Your task to perform on an android device: delete location history Image 0: 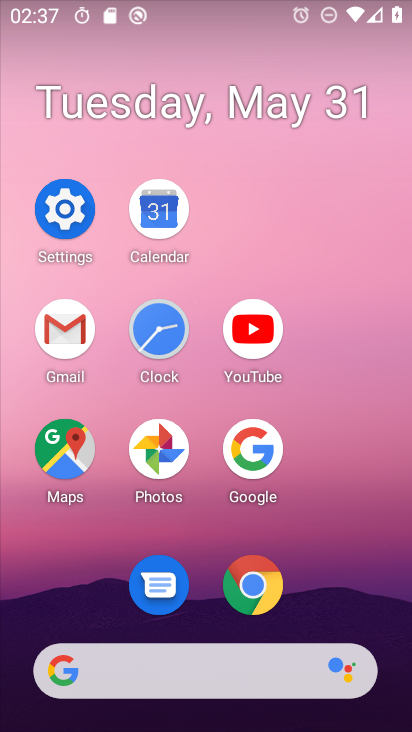
Step 0: click (50, 202)
Your task to perform on an android device: delete location history Image 1: 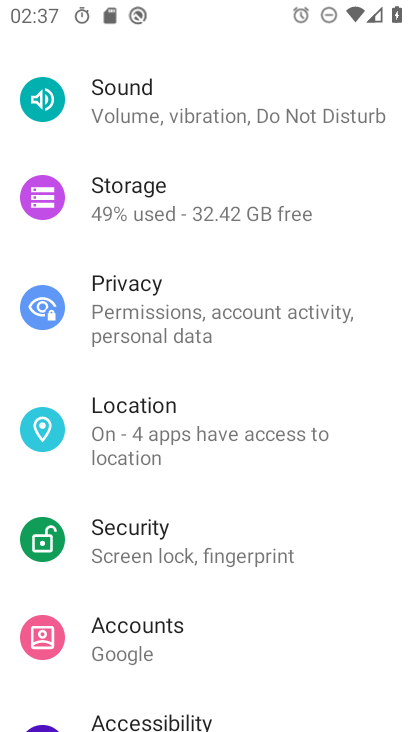
Step 1: click (220, 452)
Your task to perform on an android device: delete location history Image 2: 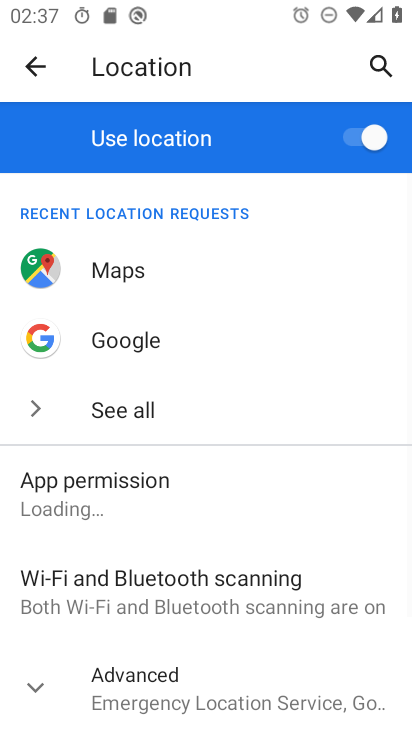
Step 2: click (214, 698)
Your task to perform on an android device: delete location history Image 3: 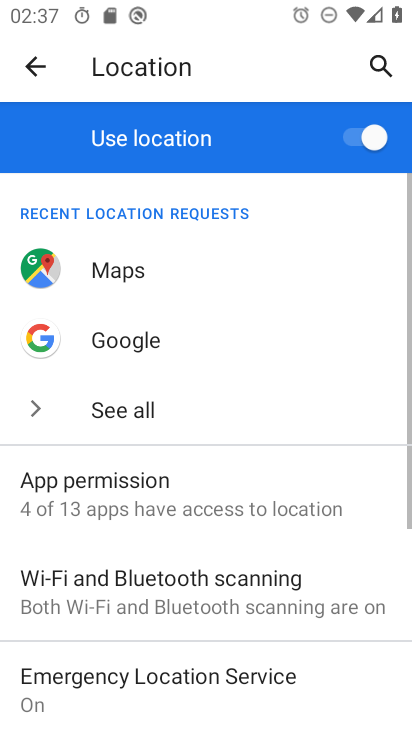
Step 3: drag from (223, 678) to (205, 206)
Your task to perform on an android device: delete location history Image 4: 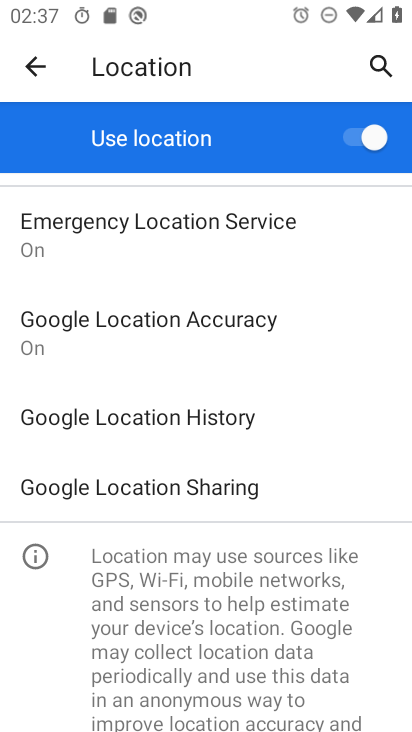
Step 4: click (290, 427)
Your task to perform on an android device: delete location history Image 5: 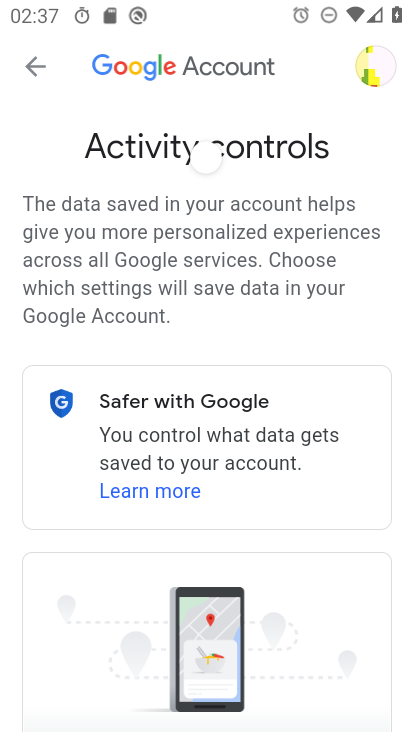
Step 5: drag from (265, 596) to (294, 104)
Your task to perform on an android device: delete location history Image 6: 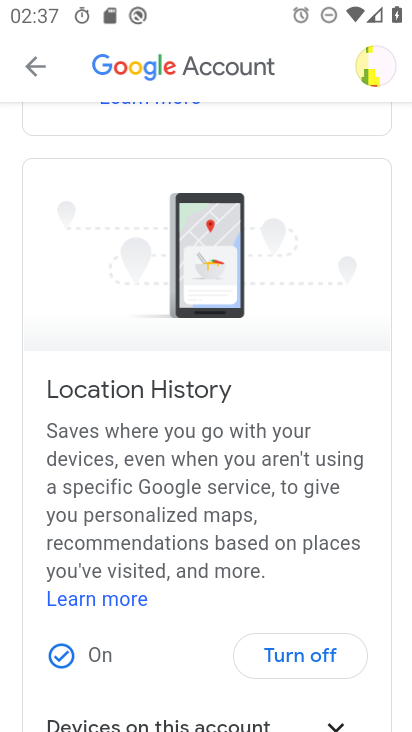
Step 6: drag from (283, 594) to (287, 171)
Your task to perform on an android device: delete location history Image 7: 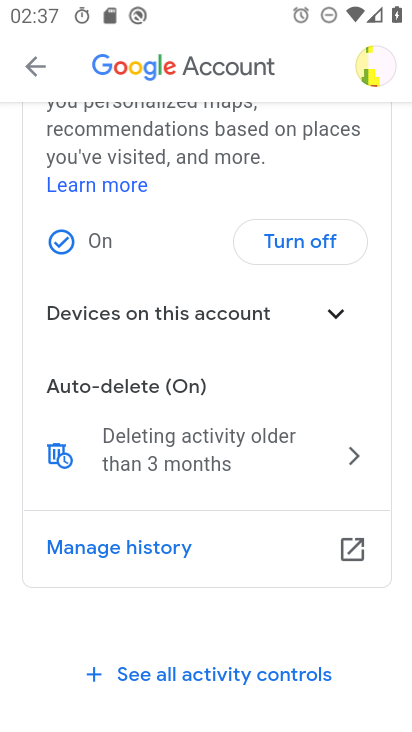
Step 7: click (257, 447)
Your task to perform on an android device: delete location history Image 8: 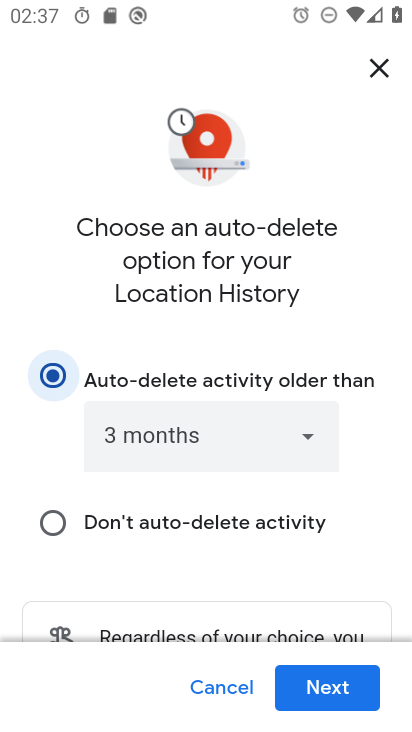
Step 8: drag from (289, 597) to (299, 172)
Your task to perform on an android device: delete location history Image 9: 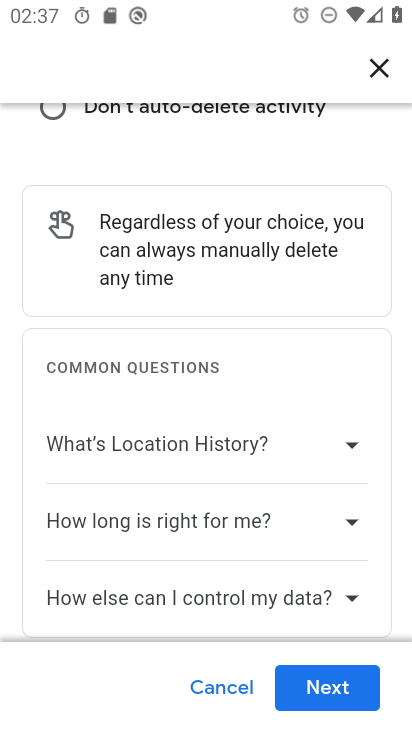
Step 9: click (357, 693)
Your task to perform on an android device: delete location history Image 10: 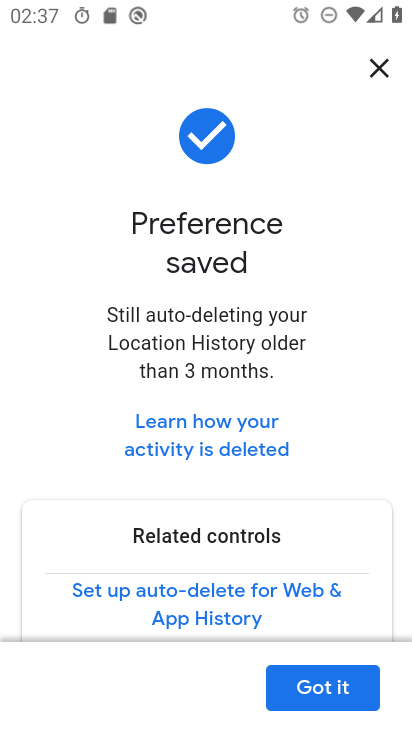
Step 10: click (358, 693)
Your task to perform on an android device: delete location history Image 11: 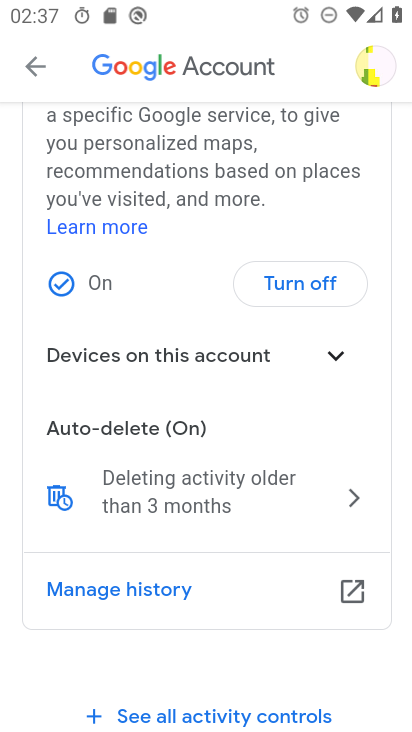
Step 11: task complete